Your task to perform on an android device: change alarm snooze length Image 0: 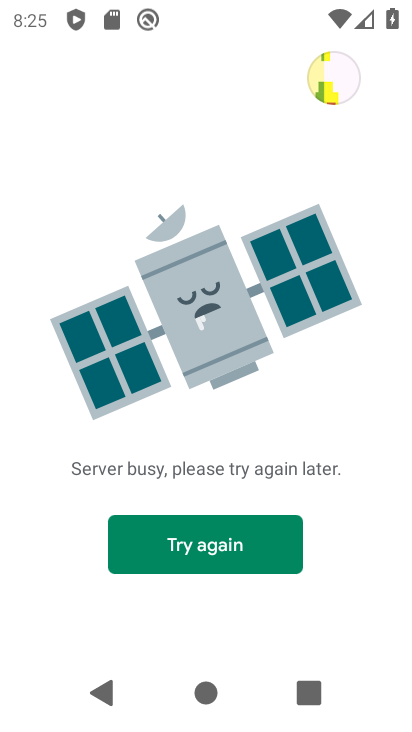
Step 0: press home button
Your task to perform on an android device: change alarm snooze length Image 1: 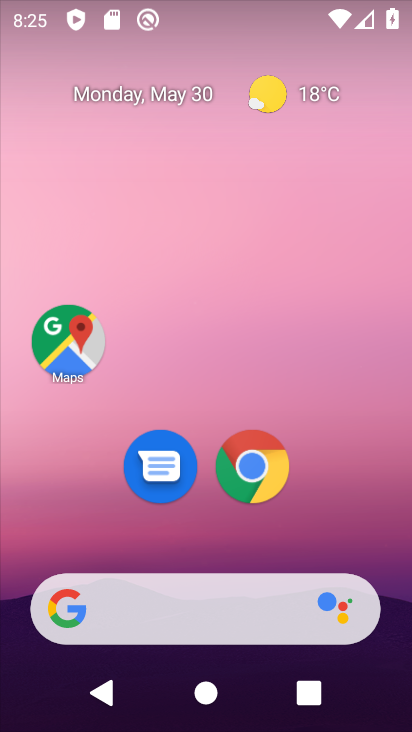
Step 1: drag from (328, 534) to (340, 103)
Your task to perform on an android device: change alarm snooze length Image 2: 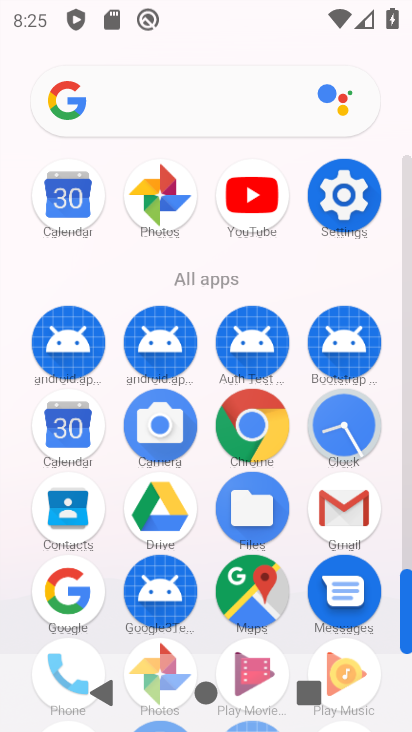
Step 2: click (354, 406)
Your task to perform on an android device: change alarm snooze length Image 3: 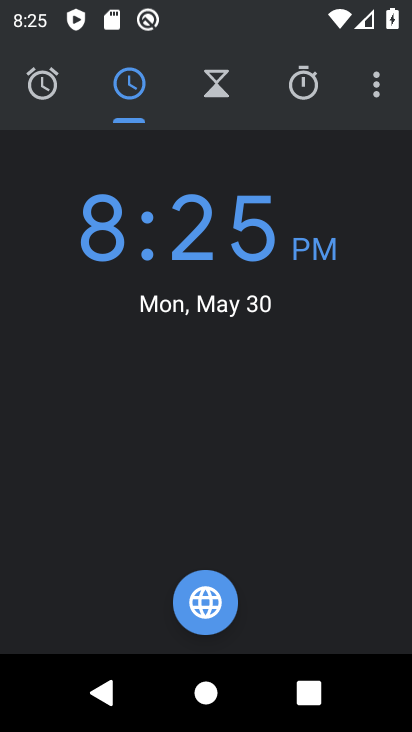
Step 3: click (383, 82)
Your task to perform on an android device: change alarm snooze length Image 4: 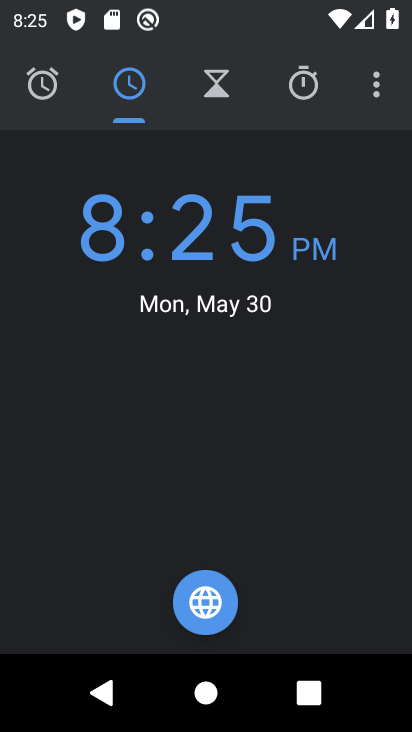
Step 4: click (375, 79)
Your task to perform on an android device: change alarm snooze length Image 5: 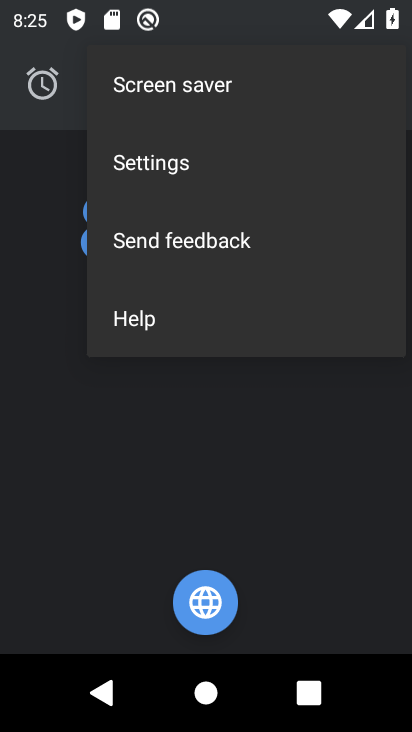
Step 5: click (118, 167)
Your task to perform on an android device: change alarm snooze length Image 6: 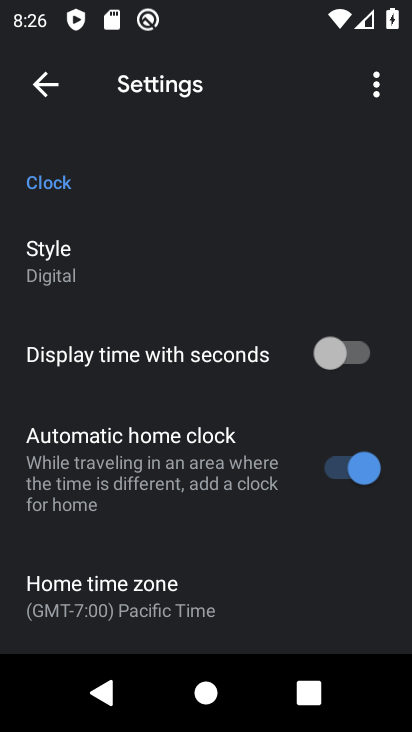
Step 6: drag from (167, 515) to (210, 270)
Your task to perform on an android device: change alarm snooze length Image 7: 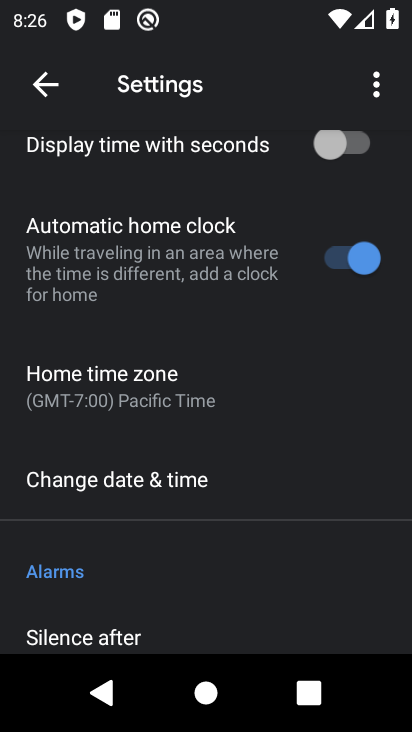
Step 7: drag from (159, 575) to (190, 184)
Your task to perform on an android device: change alarm snooze length Image 8: 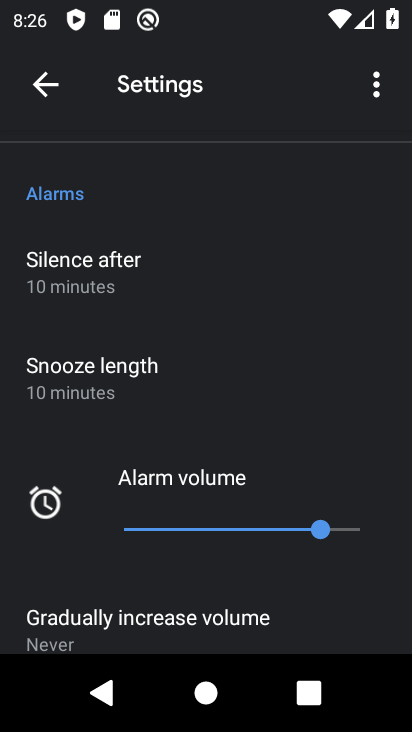
Step 8: click (105, 370)
Your task to perform on an android device: change alarm snooze length Image 9: 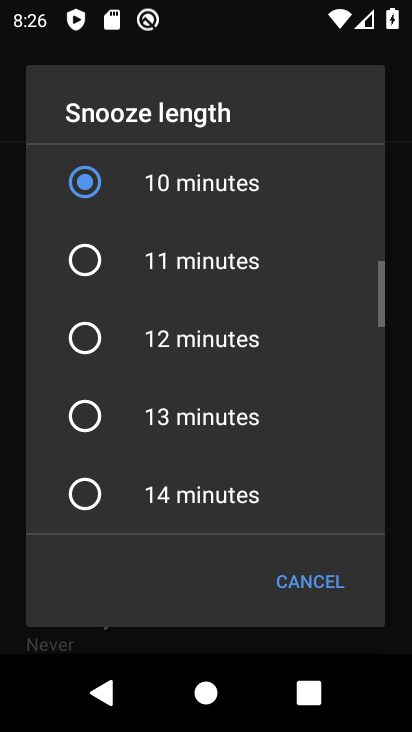
Step 9: click (164, 273)
Your task to perform on an android device: change alarm snooze length Image 10: 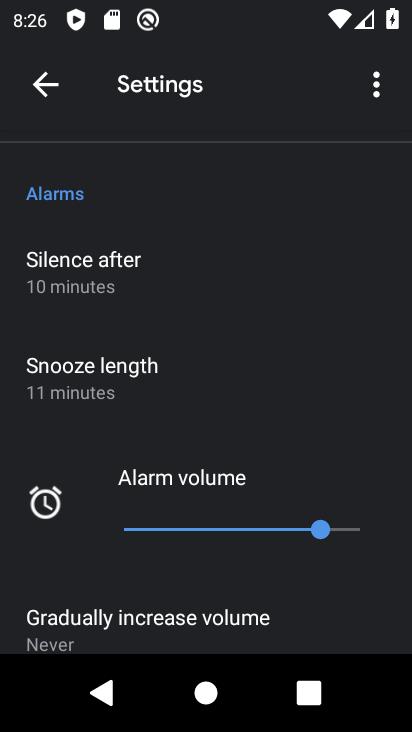
Step 10: task complete